Your task to perform on an android device: Open my contact list Image 0: 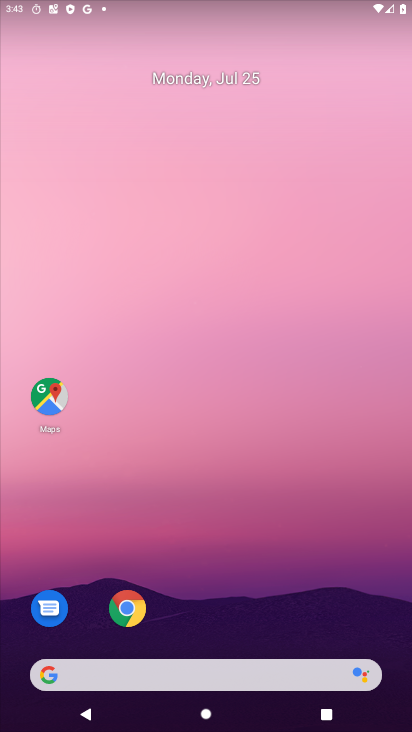
Step 0: press home button
Your task to perform on an android device: Open my contact list Image 1: 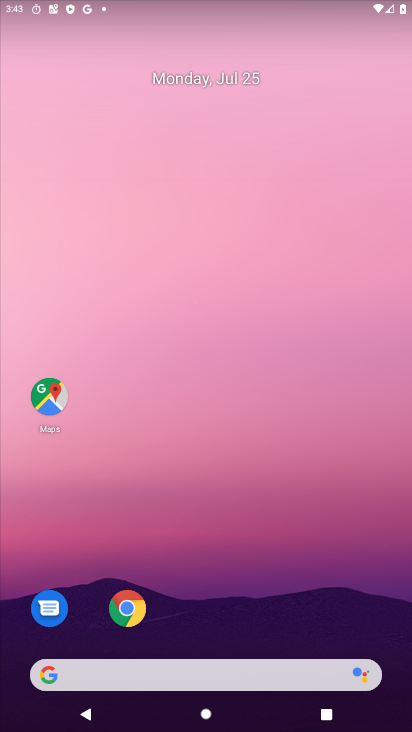
Step 1: drag from (219, 639) to (226, 42)
Your task to perform on an android device: Open my contact list Image 2: 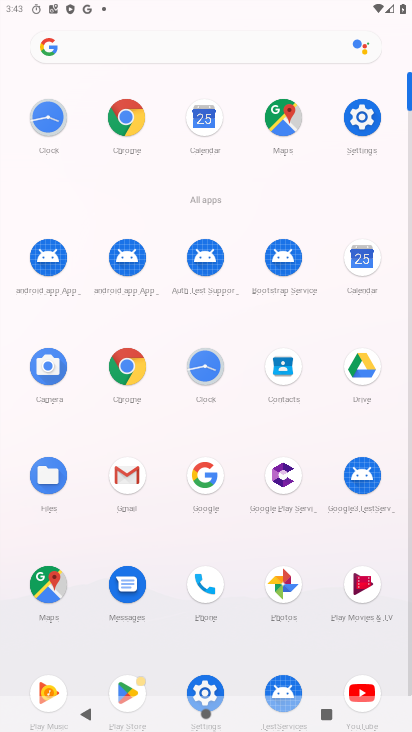
Step 2: click (278, 364)
Your task to perform on an android device: Open my contact list Image 3: 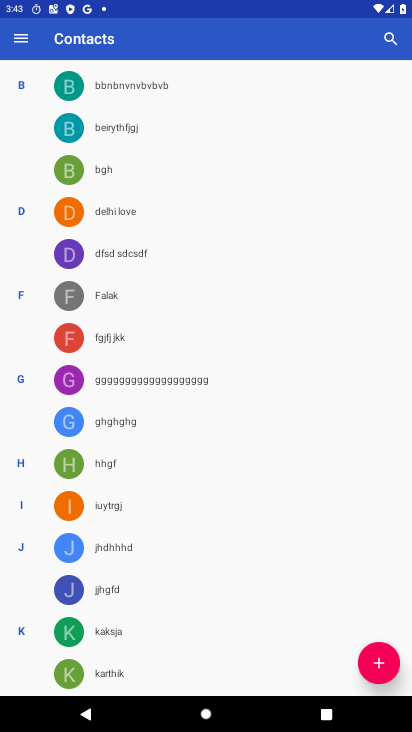
Step 3: task complete